Your task to perform on an android device: read, delete, or share a saved page in the chrome app Image 0: 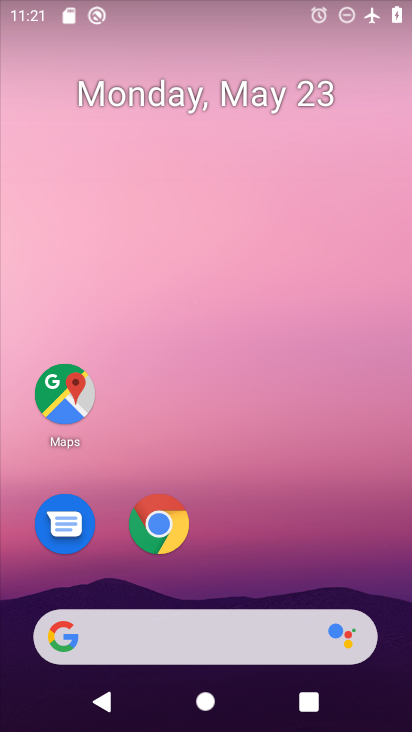
Step 0: click (175, 530)
Your task to perform on an android device: read, delete, or share a saved page in the chrome app Image 1: 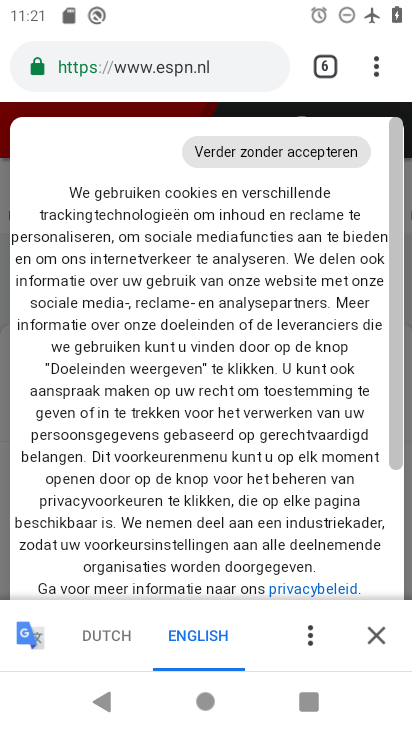
Step 1: drag from (369, 77) to (160, 507)
Your task to perform on an android device: read, delete, or share a saved page in the chrome app Image 2: 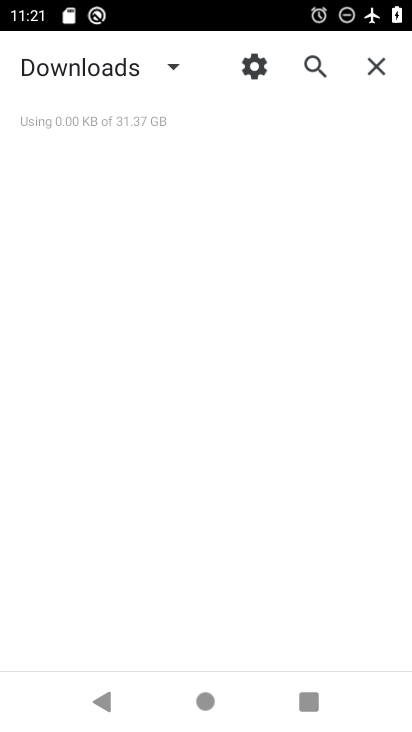
Step 2: click (168, 63)
Your task to perform on an android device: read, delete, or share a saved page in the chrome app Image 3: 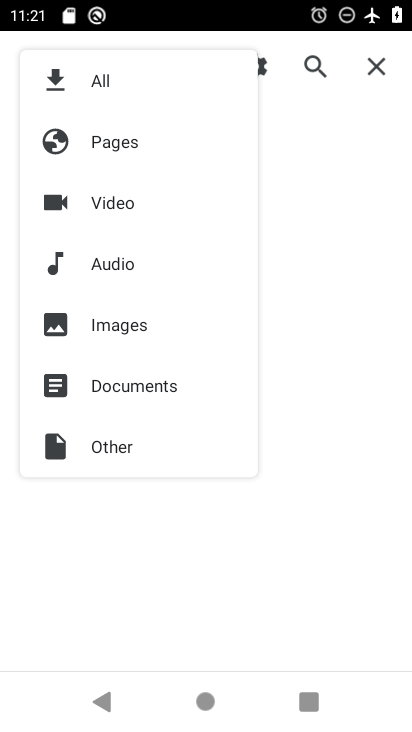
Step 3: click (144, 149)
Your task to perform on an android device: read, delete, or share a saved page in the chrome app Image 4: 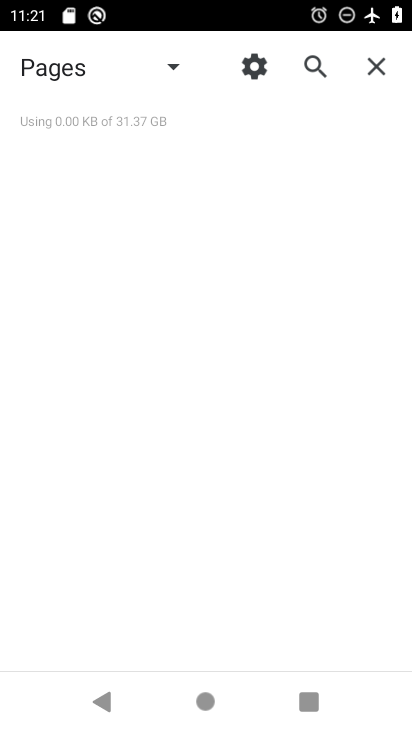
Step 4: task complete